Your task to perform on an android device: toggle improve location accuracy Image 0: 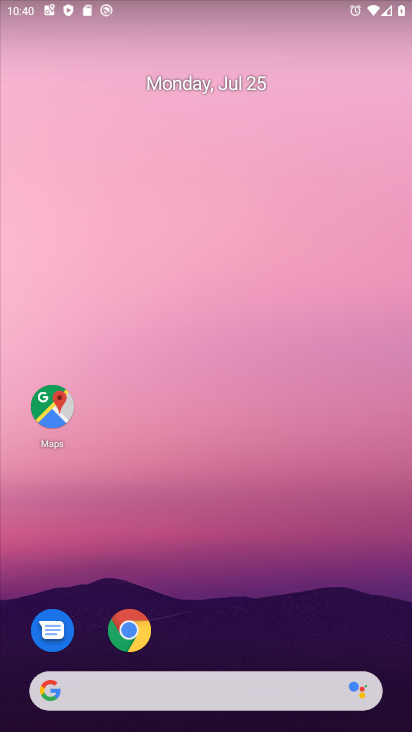
Step 0: drag from (226, 700) to (153, 211)
Your task to perform on an android device: toggle improve location accuracy Image 1: 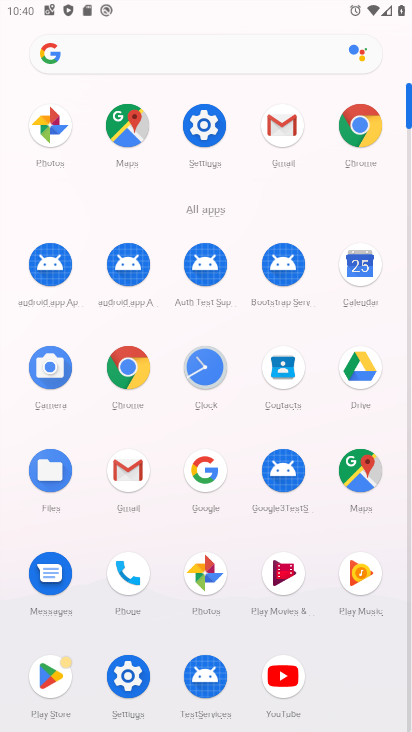
Step 1: click (123, 673)
Your task to perform on an android device: toggle improve location accuracy Image 2: 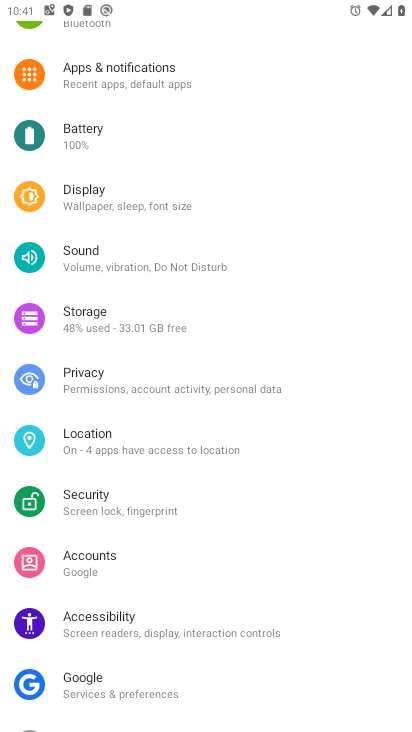
Step 2: click (122, 452)
Your task to perform on an android device: toggle improve location accuracy Image 3: 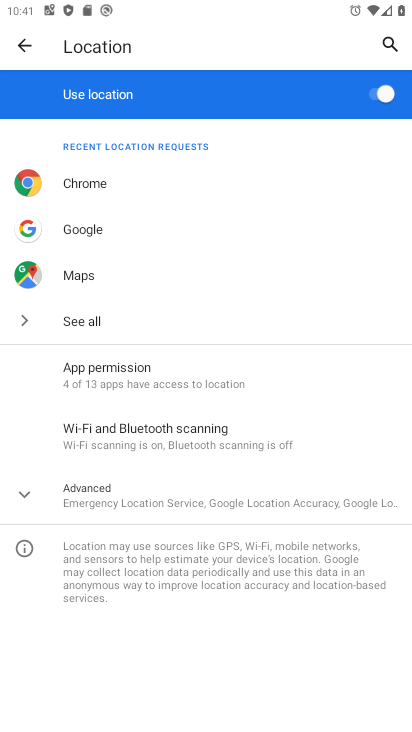
Step 3: click (153, 505)
Your task to perform on an android device: toggle improve location accuracy Image 4: 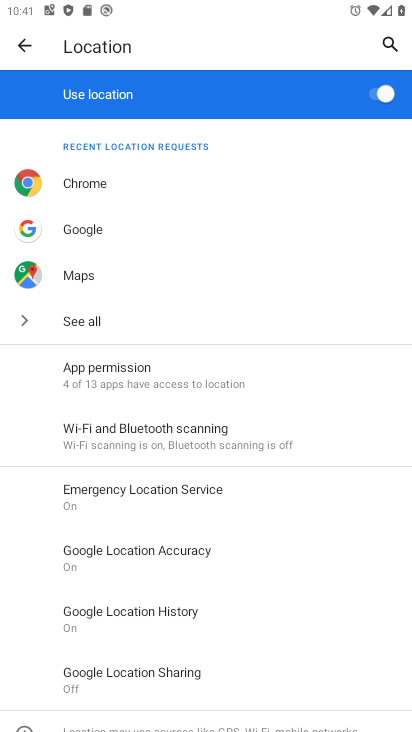
Step 4: click (220, 552)
Your task to perform on an android device: toggle improve location accuracy Image 5: 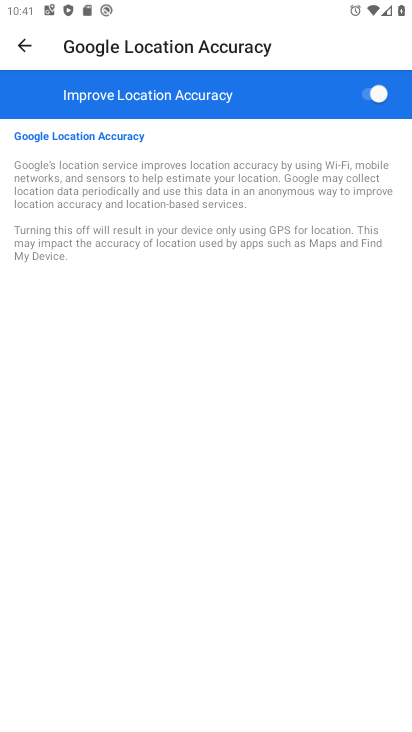
Step 5: click (366, 102)
Your task to perform on an android device: toggle improve location accuracy Image 6: 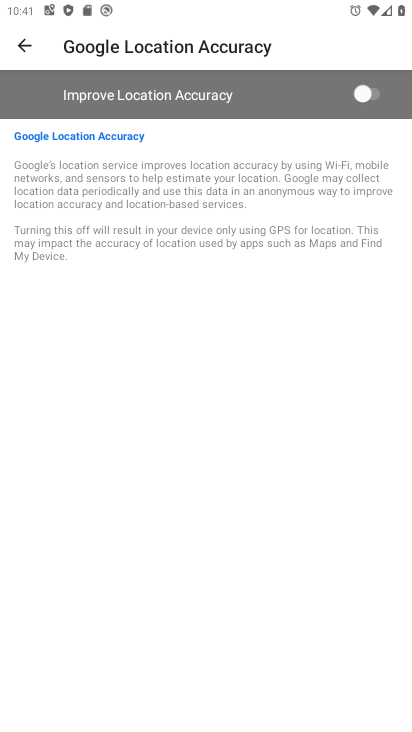
Step 6: task complete